Your task to perform on an android device: remove spam from my inbox in the gmail app Image 0: 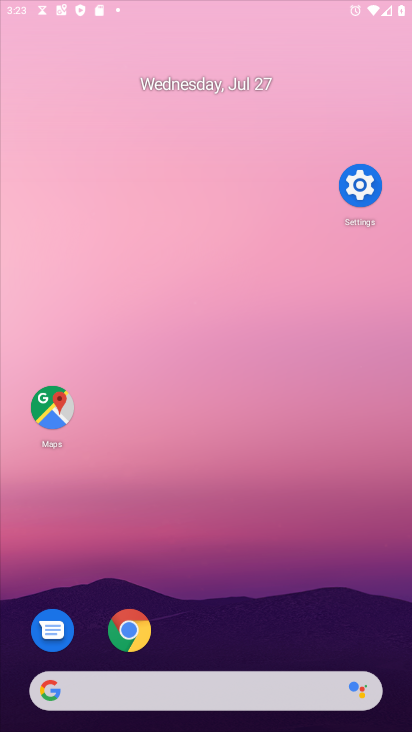
Step 0: press home button
Your task to perform on an android device: remove spam from my inbox in the gmail app Image 1: 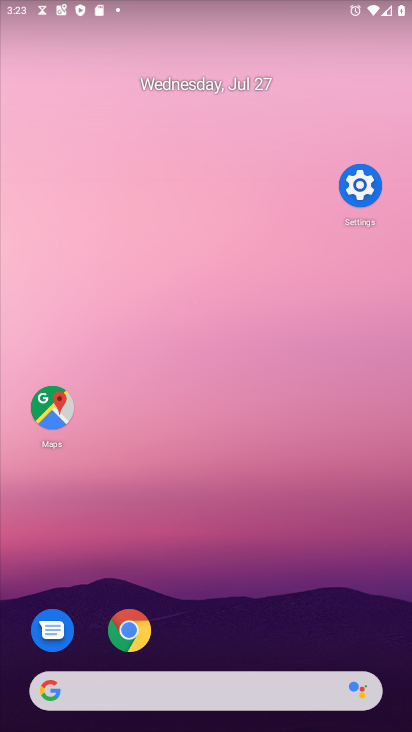
Step 1: press home button
Your task to perform on an android device: remove spam from my inbox in the gmail app Image 2: 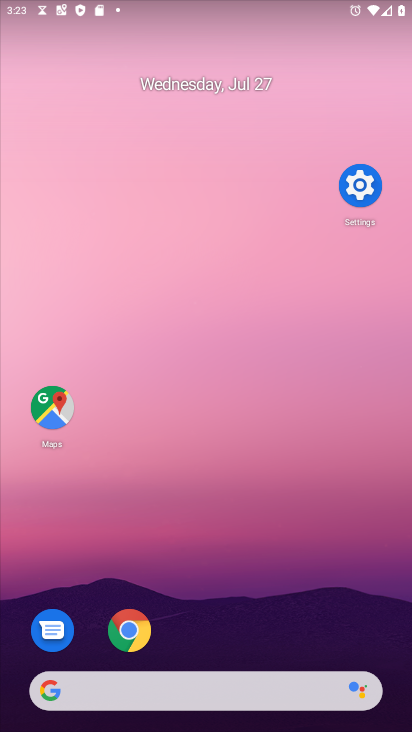
Step 2: drag from (289, 638) to (297, 64)
Your task to perform on an android device: remove spam from my inbox in the gmail app Image 3: 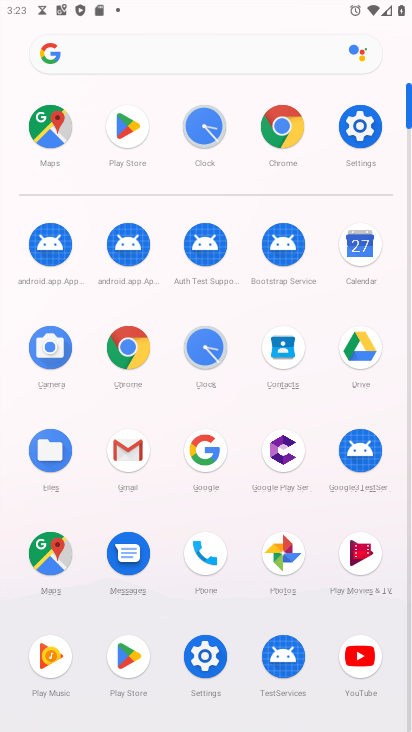
Step 3: click (131, 449)
Your task to perform on an android device: remove spam from my inbox in the gmail app Image 4: 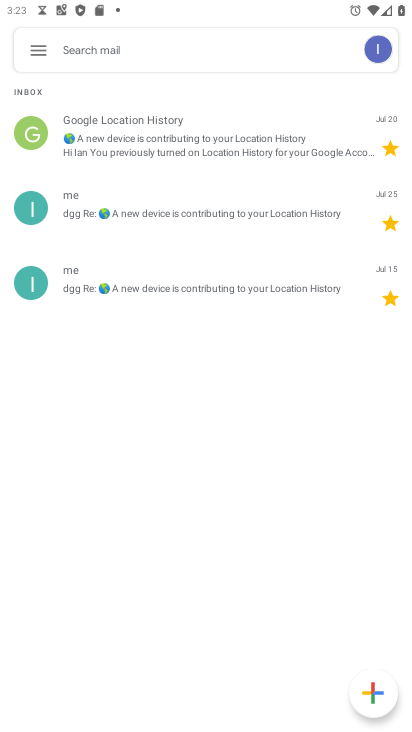
Step 4: click (206, 149)
Your task to perform on an android device: remove spam from my inbox in the gmail app Image 5: 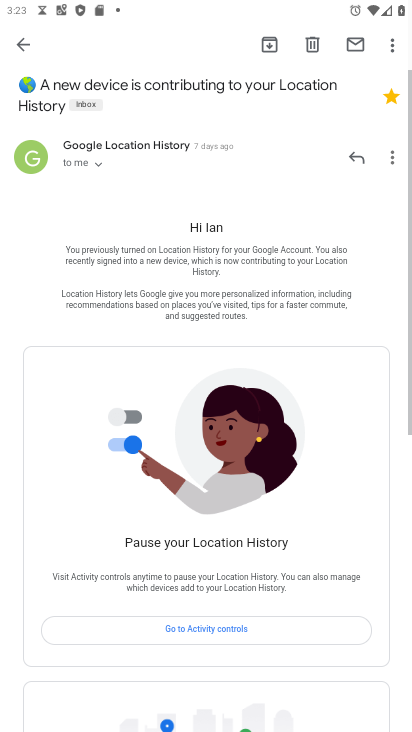
Step 5: click (387, 44)
Your task to perform on an android device: remove spam from my inbox in the gmail app Image 6: 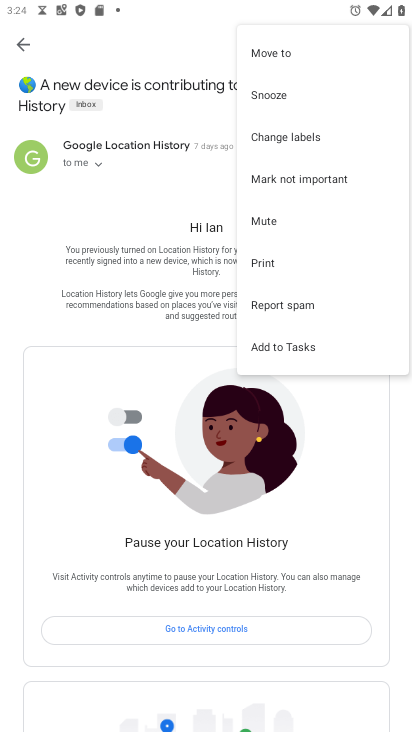
Step 6: click (257, 308)
Your task to perform on an android device: remove spam from my inbox in the gmail app Image 7: 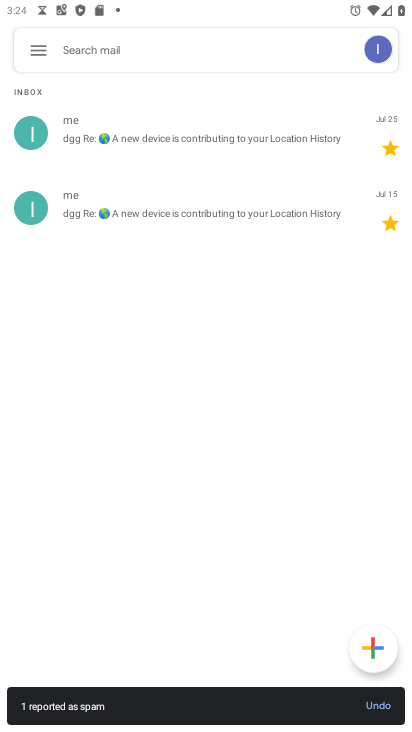
Step 7: click (287, 131)
Your task to perform on an android device: remove spam from my inbox in the gmail app Image 8: 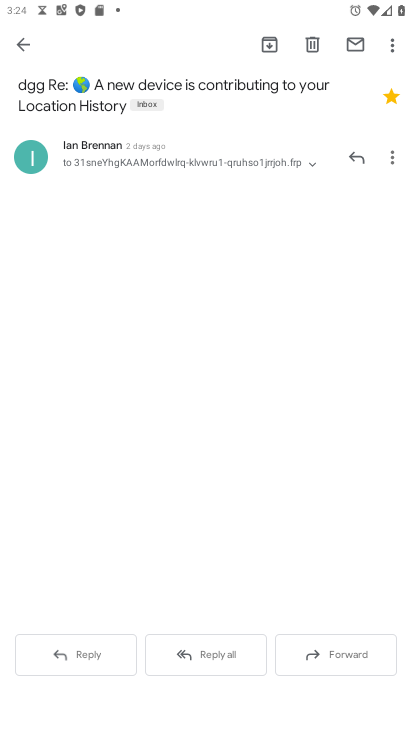
Step 8: click (389, 41)
Your task to perform on an android device: remove spam from my inbox in the gmail app Image 9: 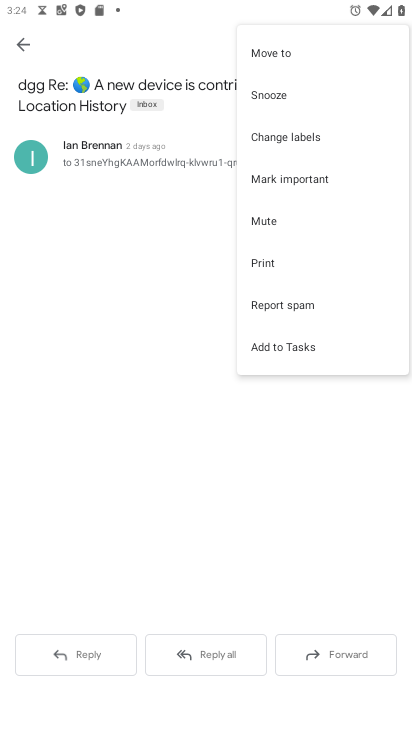
Step 9: click (286, 306)
Your task to perform on an android device: remove spam from my inbox in the gmail app Image 10: 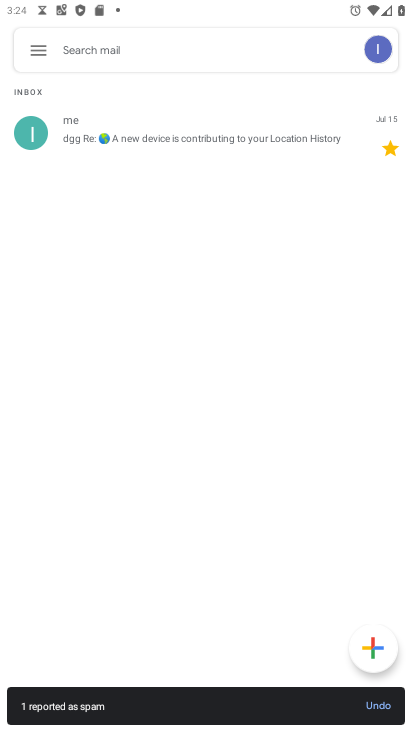
Step 10: click (279, 130)
Your task to perform on an android device: remove spam from my inbox in the gmail app Image 11: 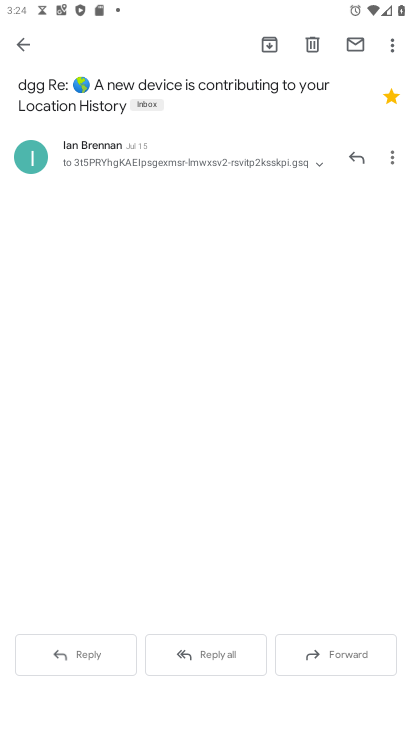
Step 11: click (391, 39)
Your task to perform on an android device: remove spam from my inbox in the gmail app Image 12: 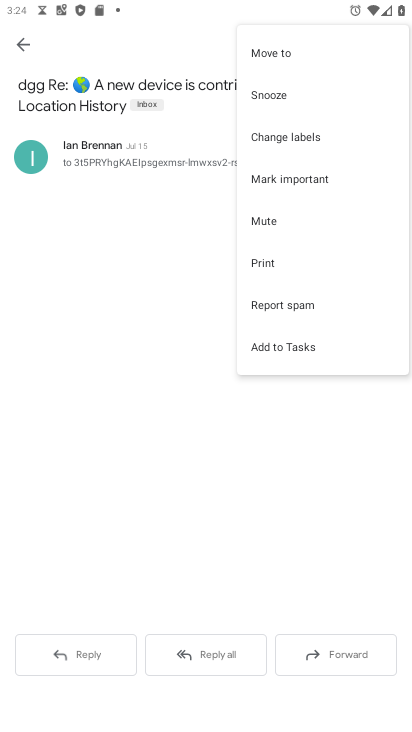
Step 12: click (287, 303)
Your task to perform on an android device: remove spam from my inbox in the gmail app Image 13: 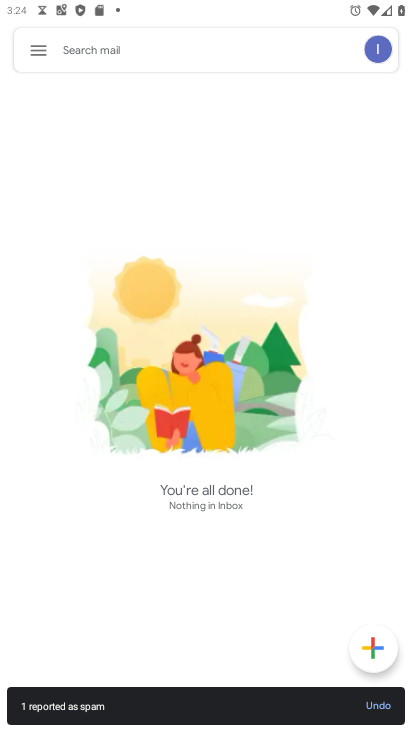
Step 13: task complete